Your task to perform on an android device: see sites visited before in the chrome app Image 0: 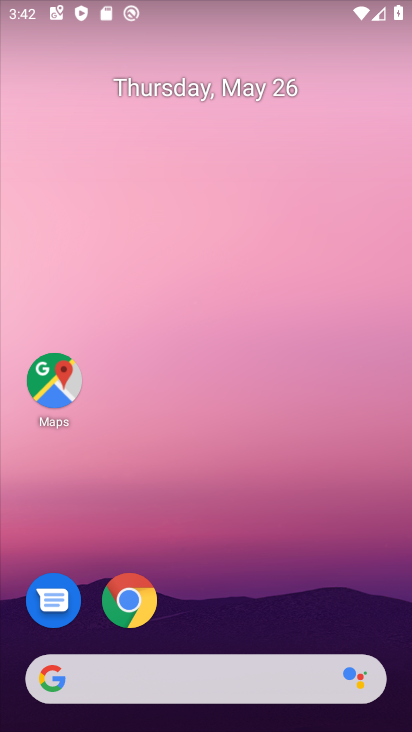
Step 0: drag from (195, 626) to (254, 158)
Your task to perform on an android device: see sites visited before in the chrome app Image 1: 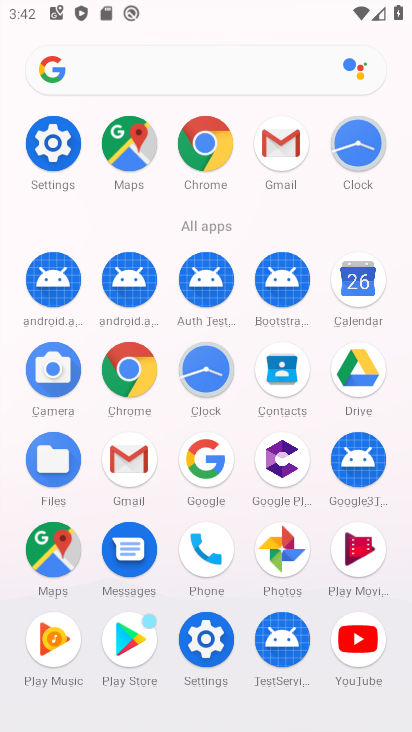
Step 1: click (133, 373)
Your task to perform on an android device: see sites visited before in the chrome app Image 2: 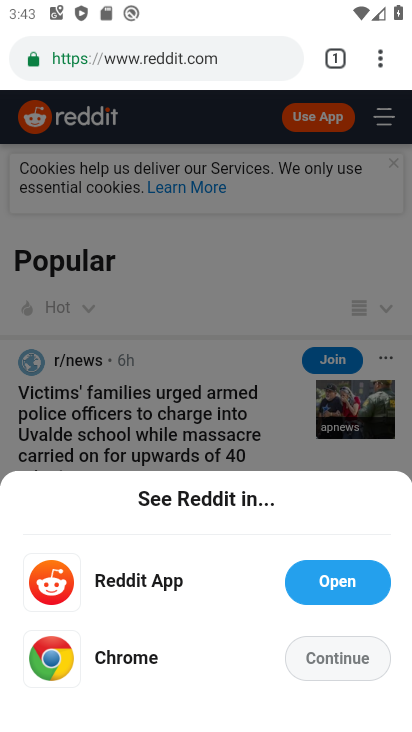
Step 2: click (380, 55)
Your task to perform on an android device: see sites visited before in the chrome app Image 3: 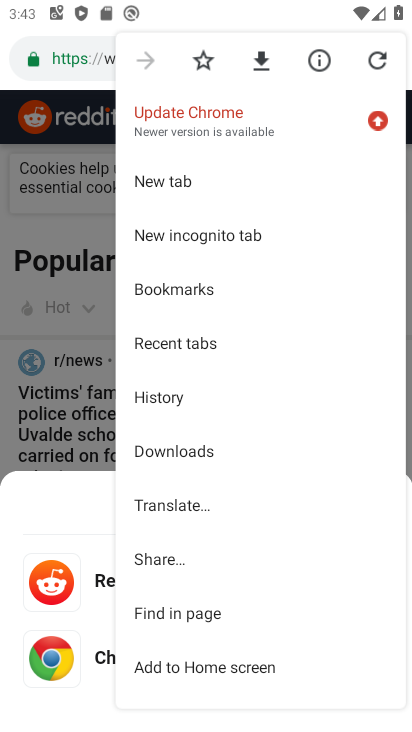
Step 3: click (192, 395)
Your task to perform on an android device: see sites visited before in the chrome app Image 4: 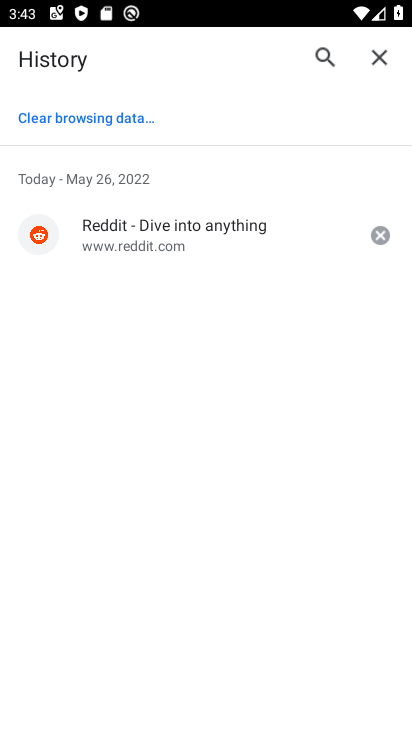
Step 4: task complete